Your task to perform on an android device: Show me popular videos on Youtube Image 0: 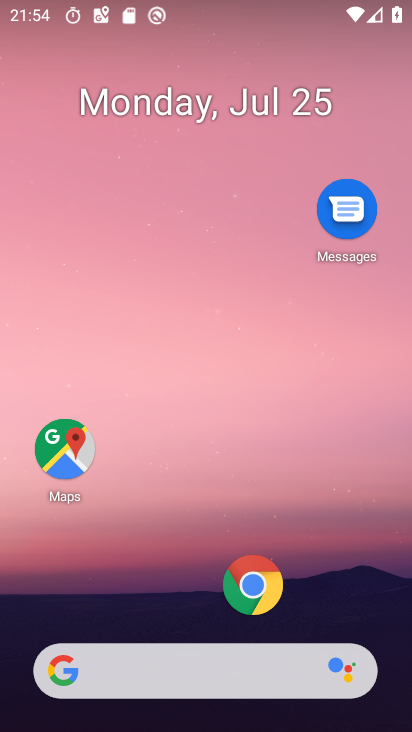
Step 0: press home button
Your task to perform on an android device: Show me popular videos on Youtube Image 1: 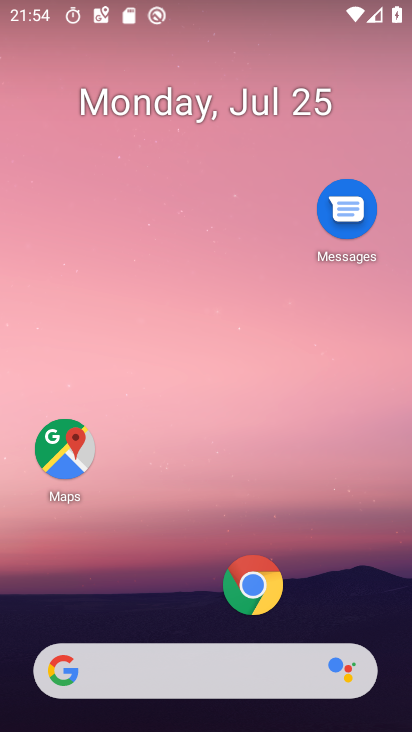
Step 1: drag from (239, 680) to (284, 15)
Your task to perform on an android device: Show me popular videos on Youtube Image 2: 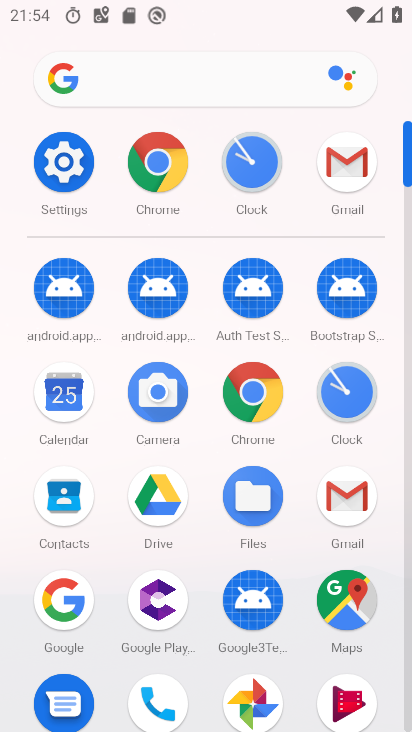
Step 2: drag from (302, 593) to (301, 47)
Your task to perform on an android device: Show me popular videos on Youtube Image 3: 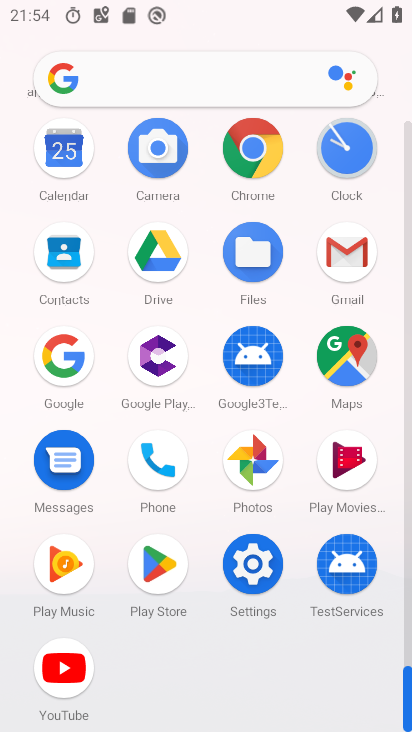
Step 3: click (68, 668)
Your task to perform on an android device: Show me popular videos on Youtube Image 4: 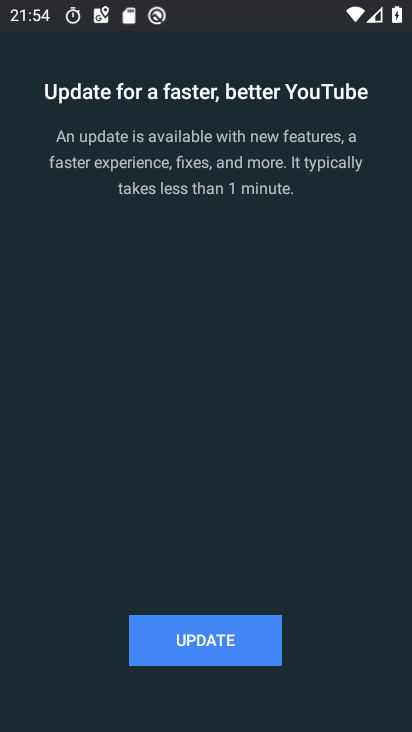
Step 4: click (195, 632)
Your task to perform on an android device: Show me popular videos on Youtube Image 5: 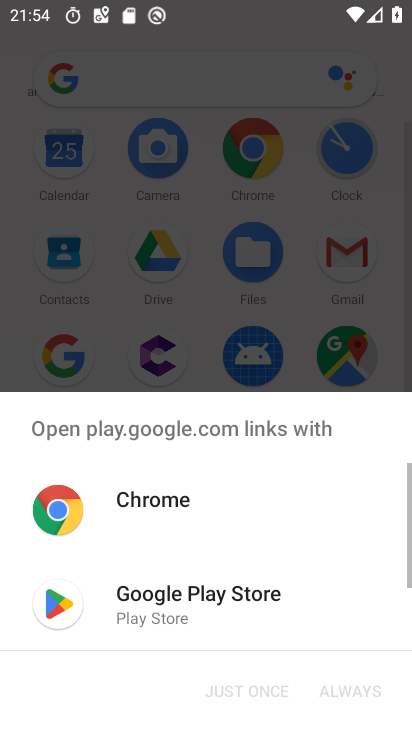
Step 5: click (150, 588)
Your task to perform on an android device: Show me popular videos on Youtube Image 6: 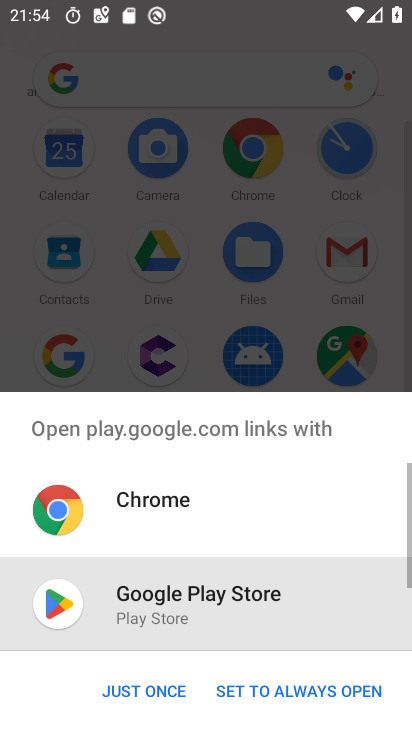
Step 6: click (175, 690)
Your task to perform on an android device: Show me popular videos on Youtube Image 7: 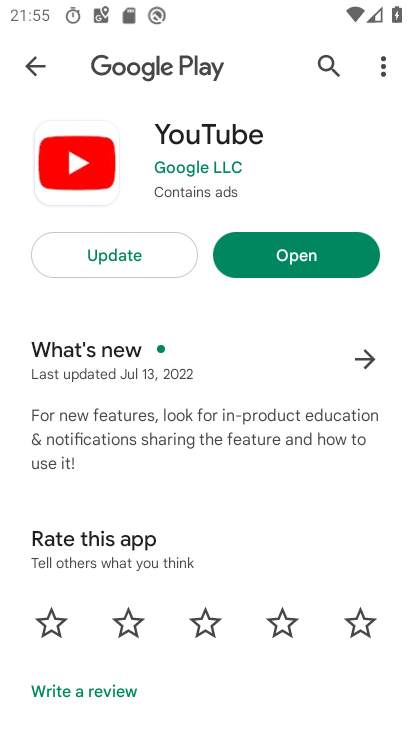
Step 7: click (112, 257)
Your task to perform on an android device: Show me popular videos on Youtube Image 8: 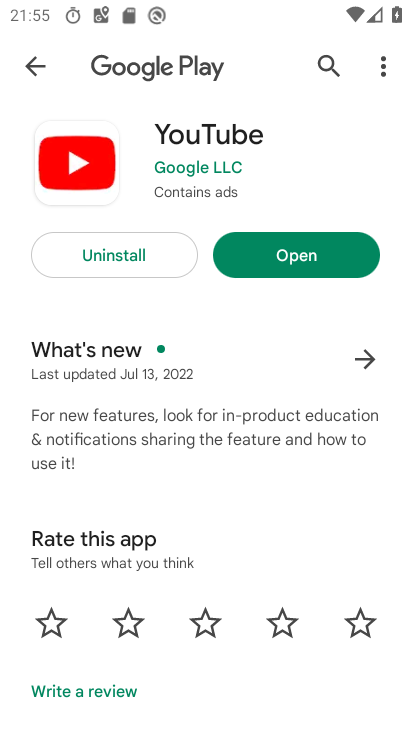
Step 8: click (303, 256)
Your task to perform on an android device: Show me popular videos on Youtube Image 9: 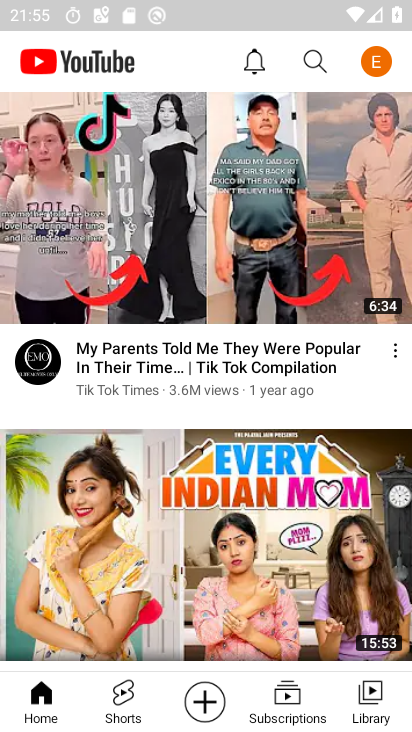
Step 9: task complete